Your task to perform on an android device: Open Wikipedia Image 0: 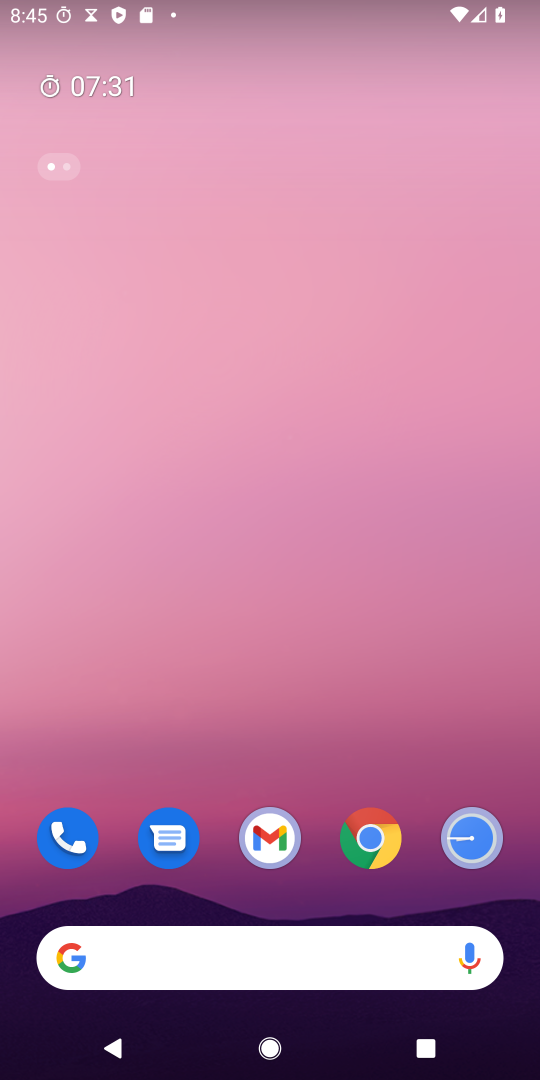
Step 0: click (366, 865)
Your task to perform on an android device: Open Wikipedia Image 1: 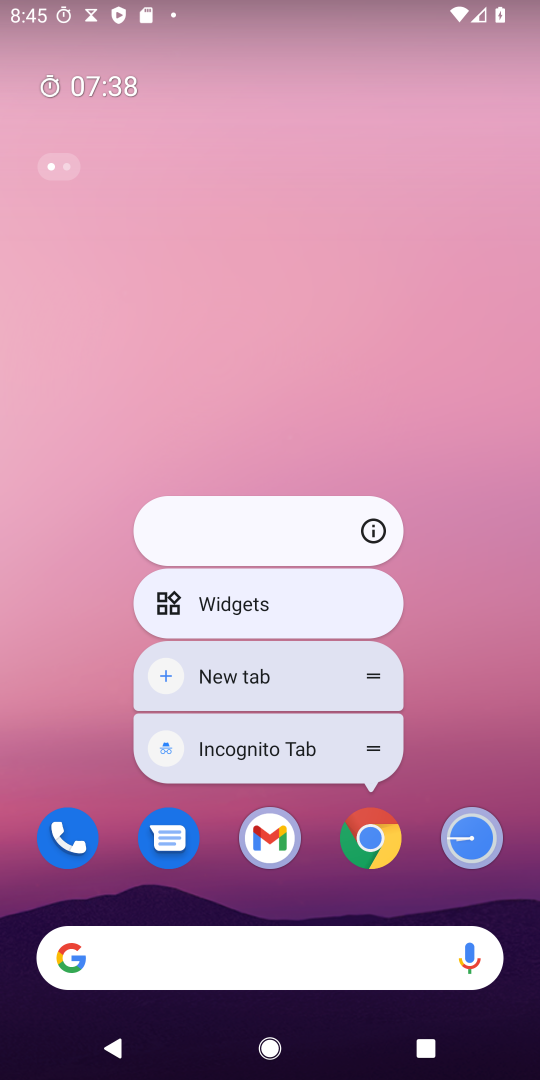
Step 1: click (366, 865)
Your task to perform on an android device: Open Wikipedia Image 2: 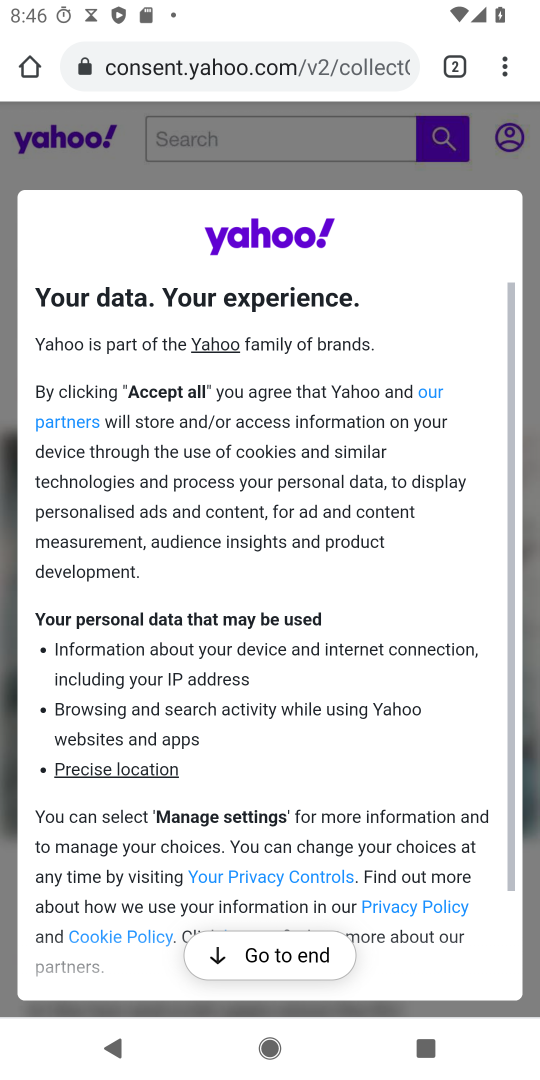
Step 2: click (250, 63)
Your task to perform on an android device: Open Wikipedia Image 3: 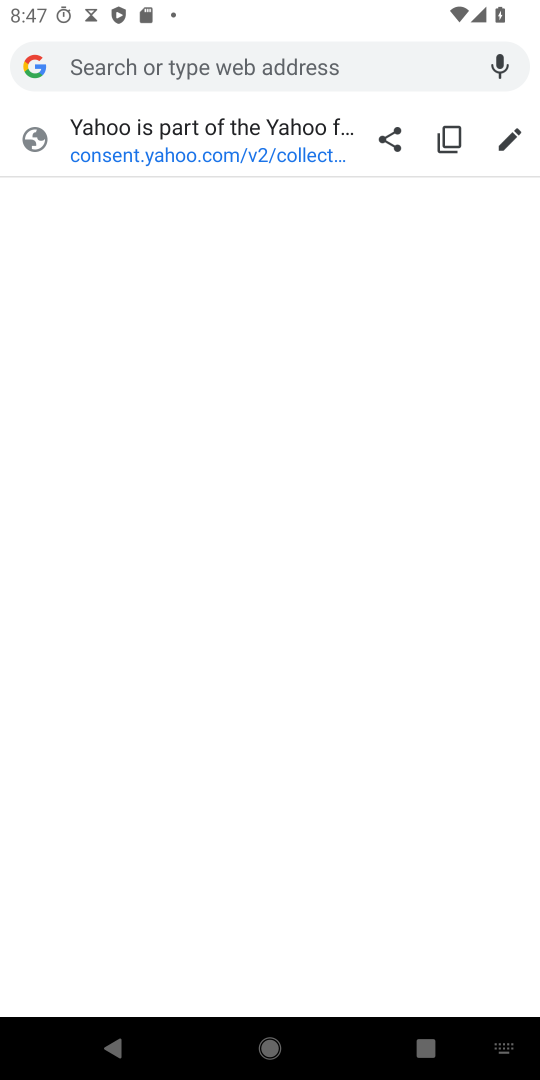
Step 3: type "Wikipedia"
Your task to perform on an android device: Open Wikipedia Image 4: 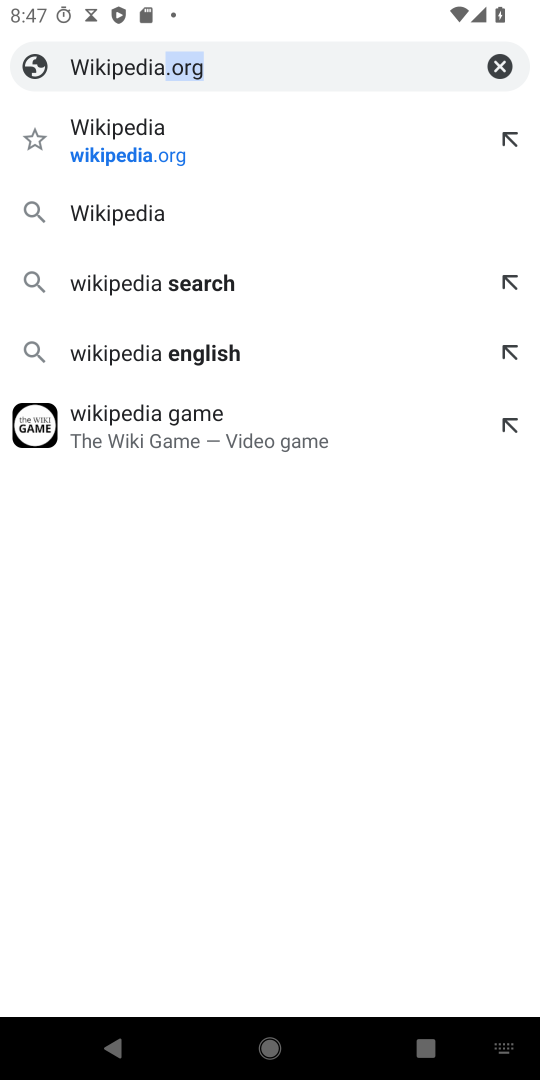
Step 4: click (146, 153)
Your task to perform on an android device: Open Wikipedia Image 5: 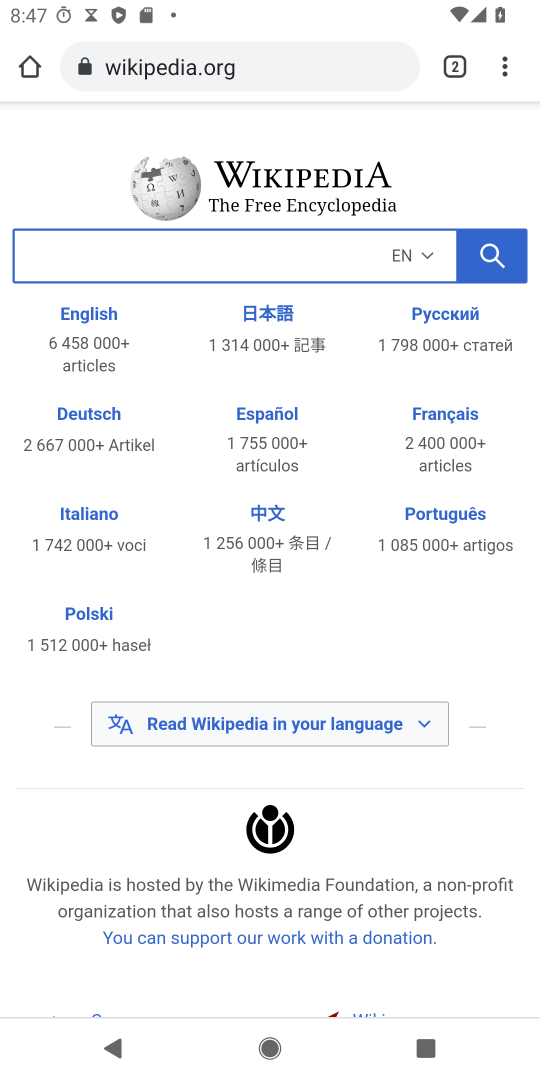
Step 5: task complete